Your task to perform on an android device: toggle notification dots Image 0: 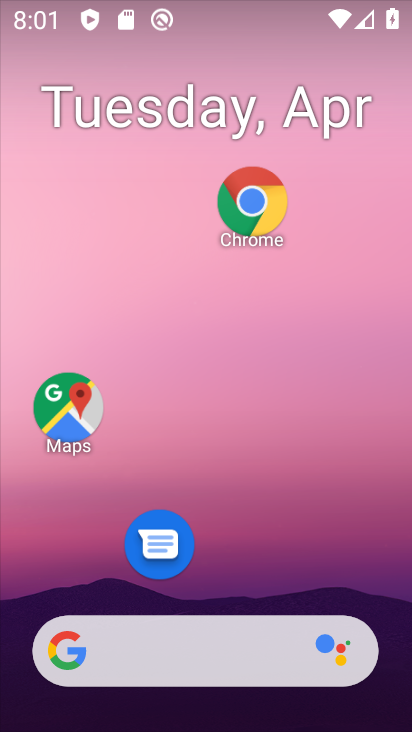
Step 0: drag from (211, 582) to (282, 55)
Your task to perform on an android device: toggle notification dots Image 1: 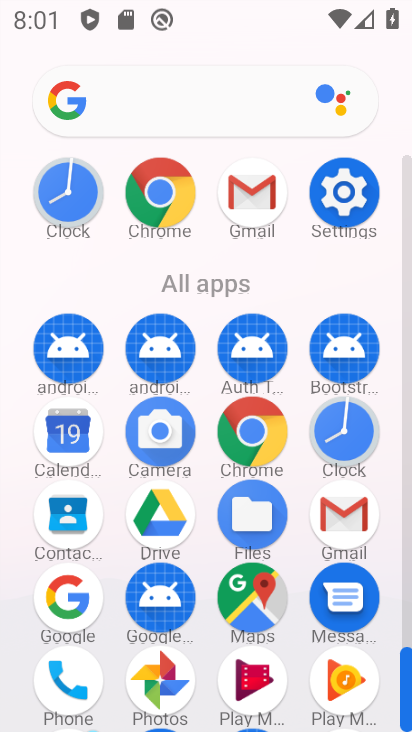
Step 1: click (344, 187)
Your task to perform on an android device: toggle notification dots Image 2: 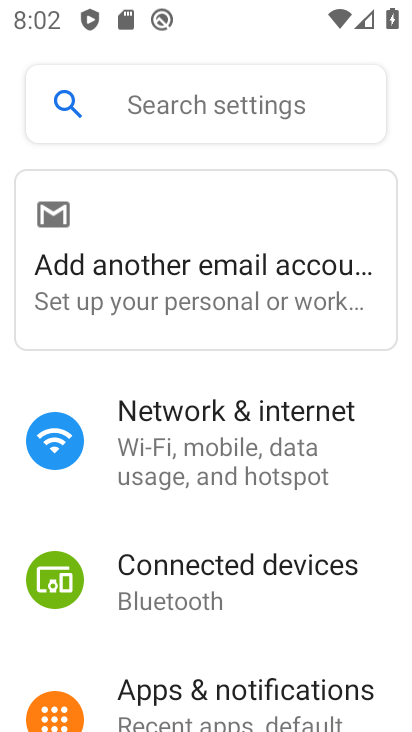
Step 2: click (202, 696)
Your task to perform on an android device: toggle notification dots Image 3: 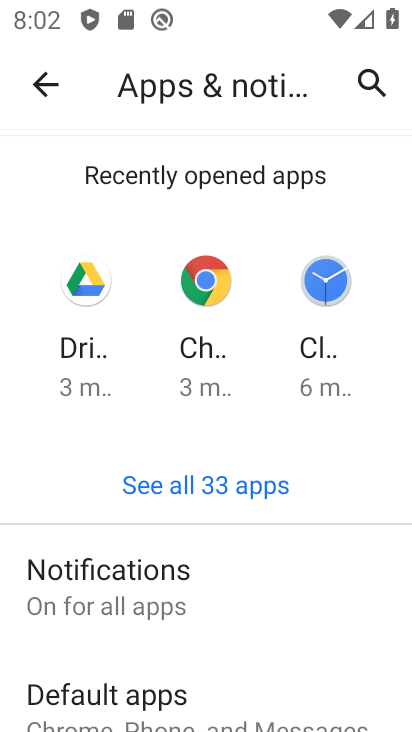
Step 3: click (192, 588)
Your task to perform on an android device: toggle notification dots Image 4: 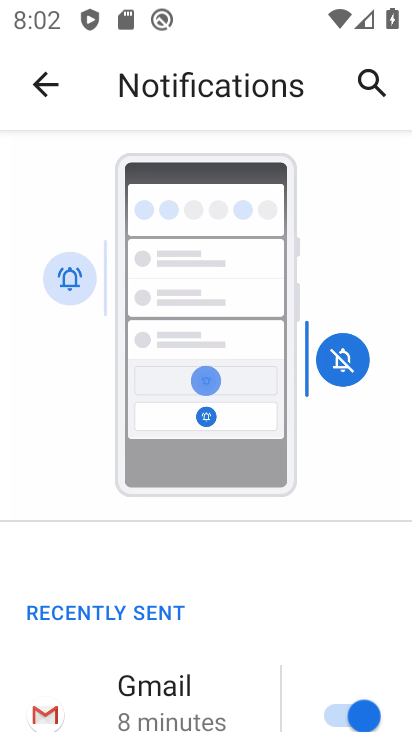
Step 4: drag from (213, 657) to (294, 125)
Your task to perform on an android device: toggle notification dots Image 5: 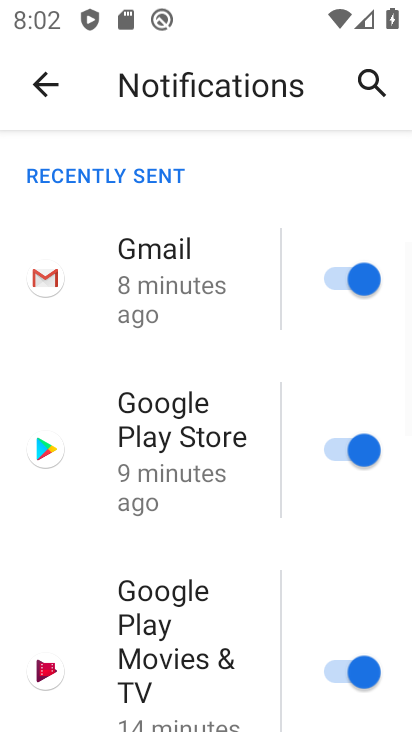
Step 5: drag from (165, 634) to (302, 76)
Your task to perform on an android device: toggle notification dots Image 6: 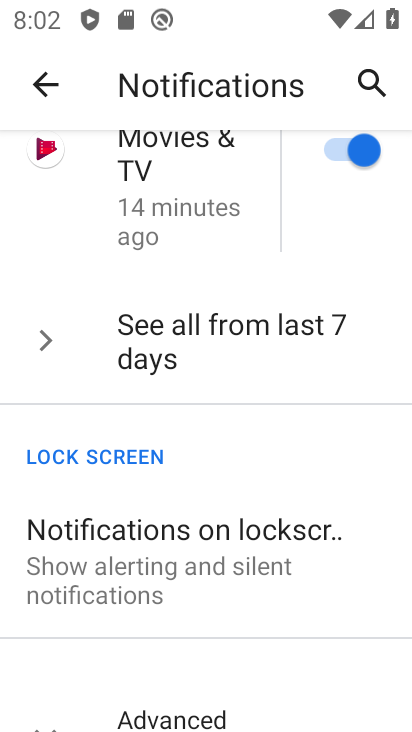
Step 6: drag from (178, 643) to (232, 435)
Your task to perform on an android device: toggle notification dots Image 7: 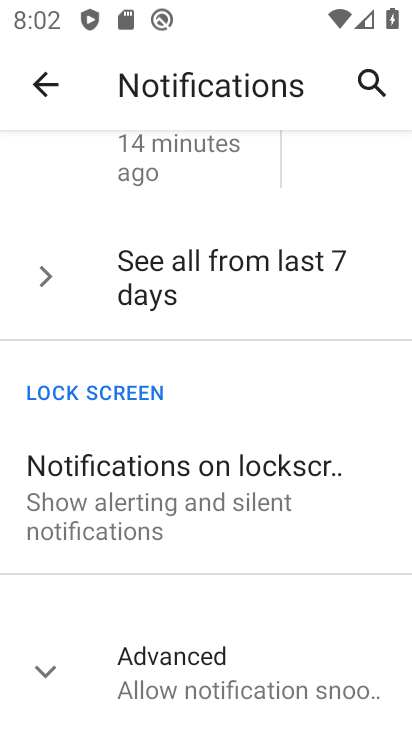
Step 7: click (187, 669)
Your task to perform on an android device: toggle notification dots Image 8: 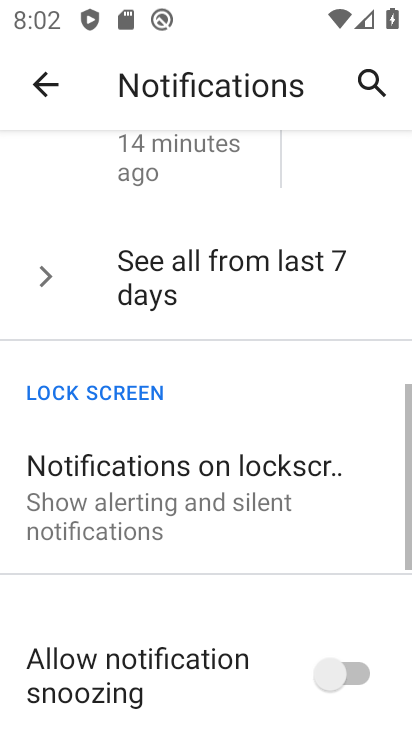
Step 8: drag from (224, 599) to (311, 176)
Your task to perform on an android device: toggle notification dots Image 9: 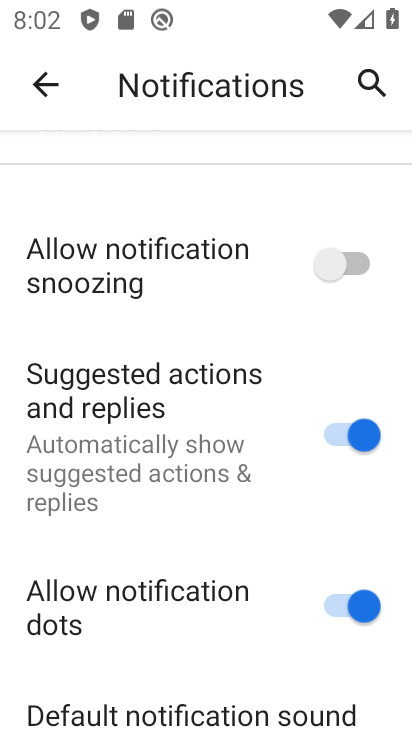
Step 9: click (368, 610)
Your task to perform on an android device: toggle notification dots Image 10: 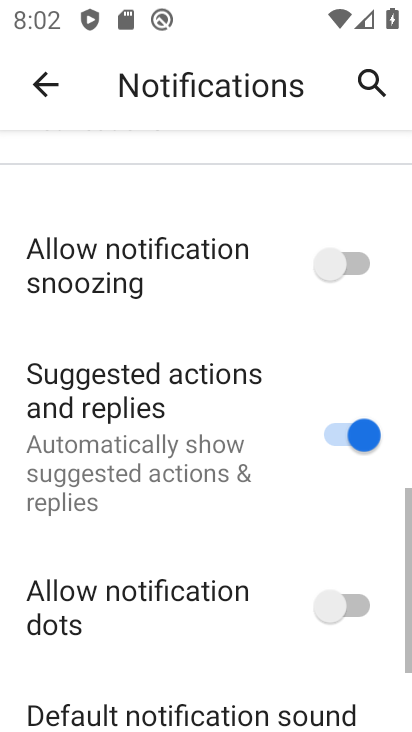
Step 10: task complete